Your task to perform on an android device: clear all cookies in the chrome app Image 0: 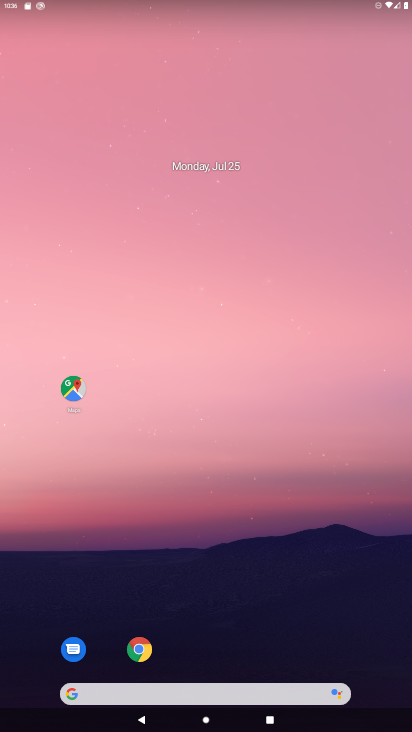
Step 0: click (139, 651)
Your task to perform on an android device: clear all cookies in the chrome app Image 1: 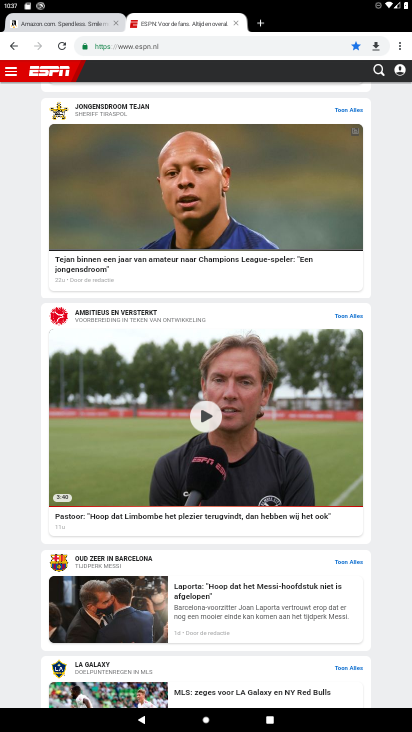
Step 1: click (400, 49)
Your task to perform on an android device: clear all cookies in the chrome app Image 2: 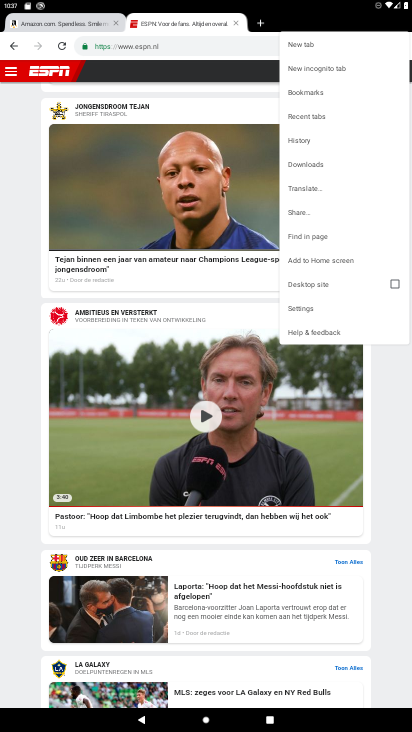
Step 2: click (294, 140)
Your task to perform on an android device: clear all cookies in the chrome app Image 3: 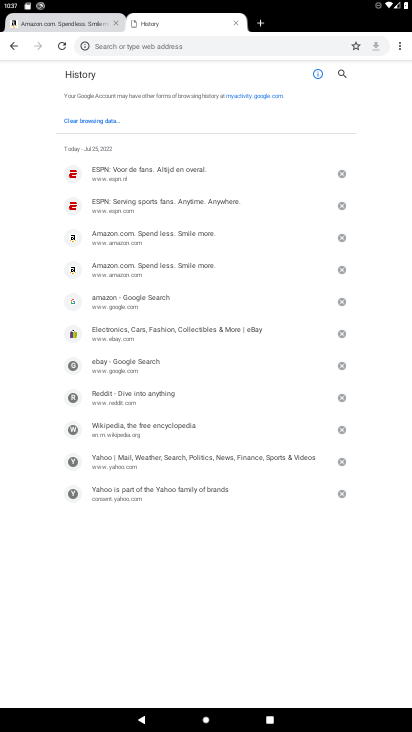
Step 3: click (78, 119)
Your task to perform on an android device: clear all cookies in the chrome app Image 4: 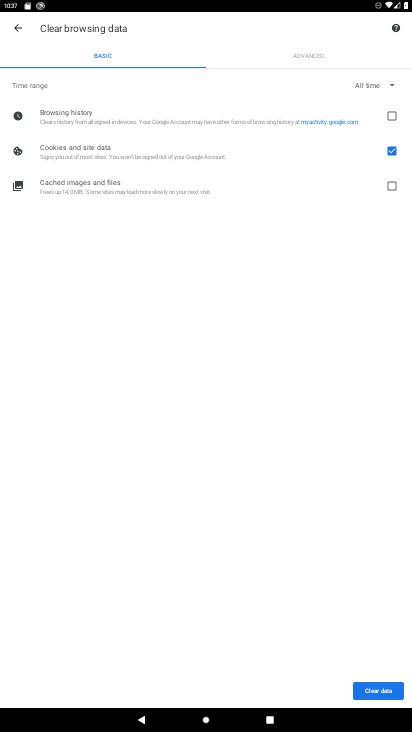
Step 4: click (376, 690)
Your task to perform on an android device: clear all cookies in the chrome app Image 5: 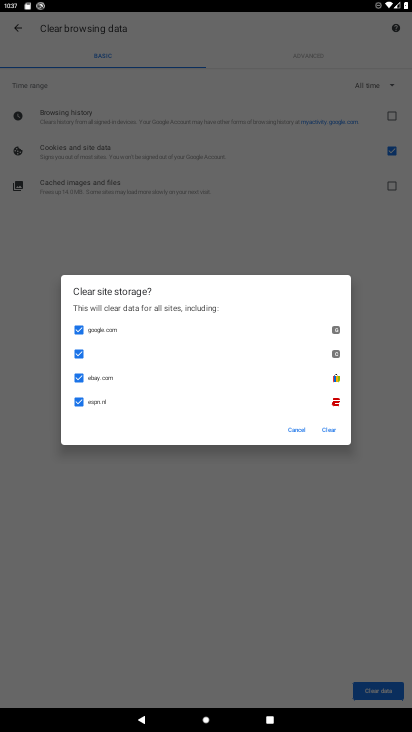
Step 5: click (325, 429)
Your task to perform on an android device: clear all cookies in the chrome app Image 6: 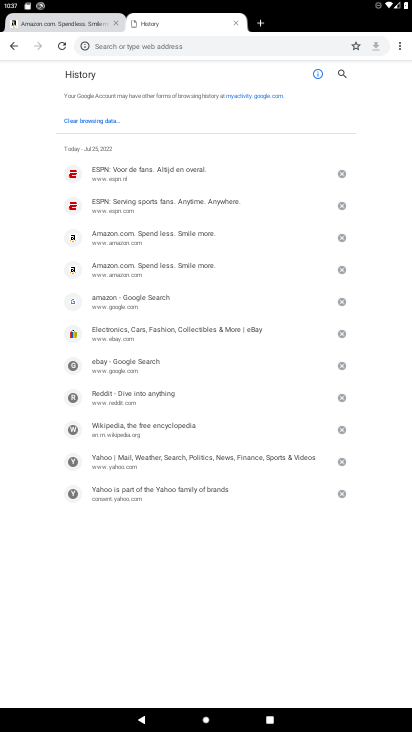
Step 6: task complete